Your task to perform on an android device: Open Wikipedia Image 0: 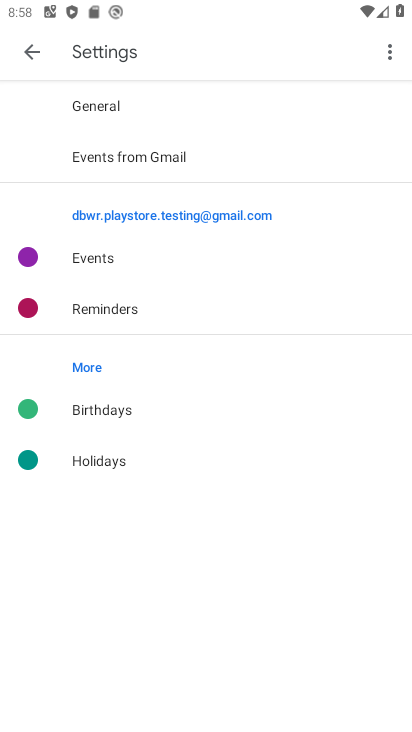
Step 0: press home button
Your task to perform on an android device: Open Wikipedia Image 1: 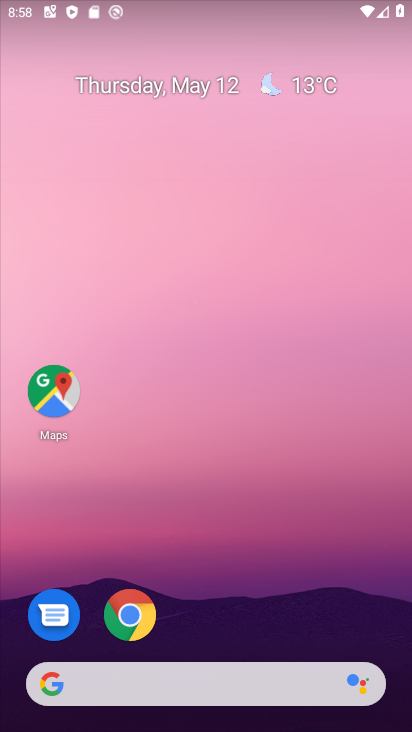
Step 1: click (137, 605)
Your task to perform on an android device: Open Wikipedia Image 2: 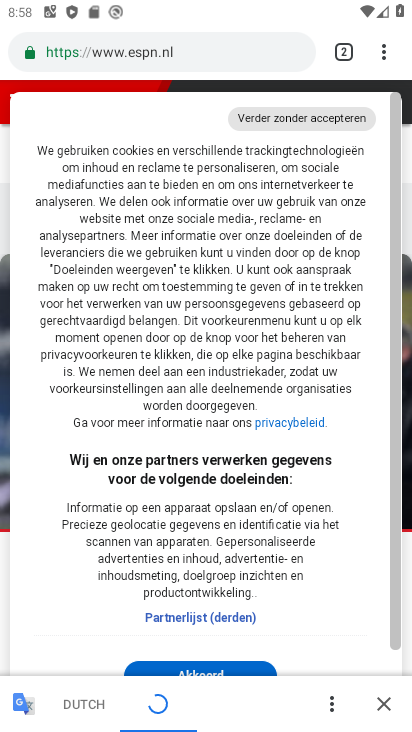
Step 2: click (331, 48)
Your task to perform on an android device: Open Wikipedia Image 3: 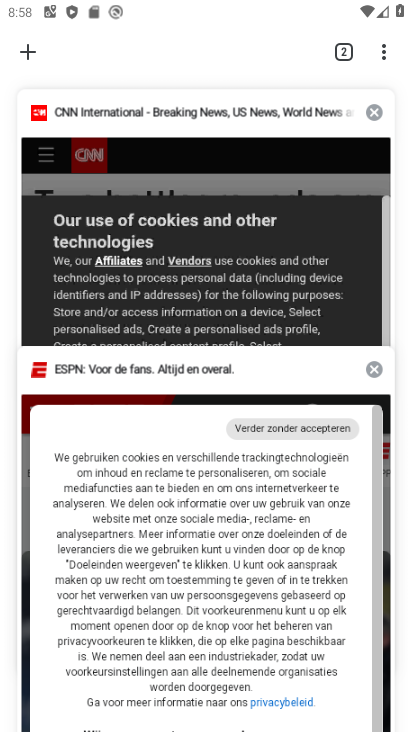
Step 3: click (31, 52)
Your task to perform on an android device: Open Wikipedia Image 4: 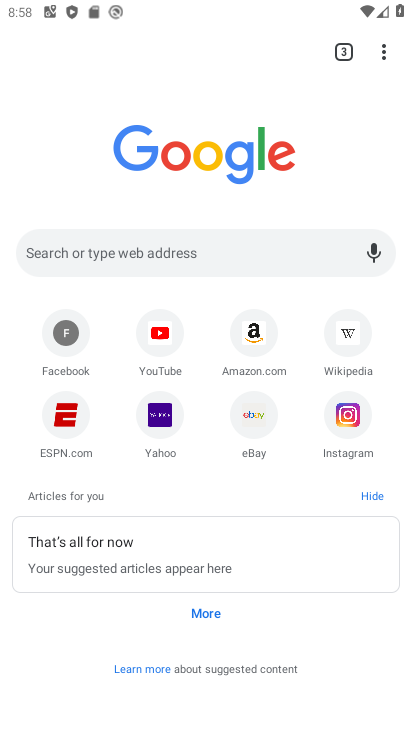
Step 4: click (352, 323)
Your task to perform on an android device: Open Wikipedia Image 5: 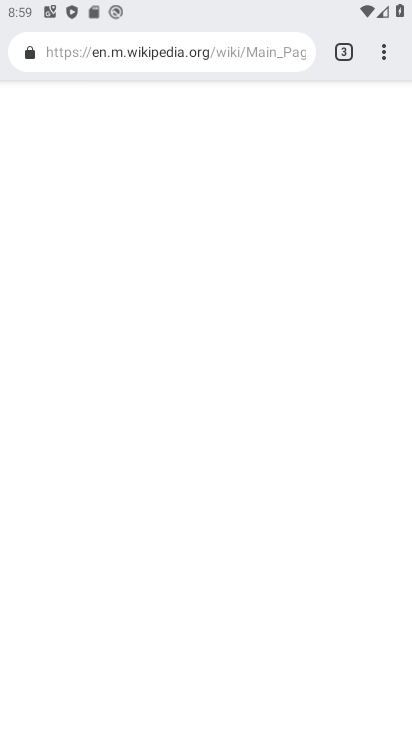
Step 5: task complete